Your task to perform on an android device: turn on notifications settings in the gmail app Image 0: 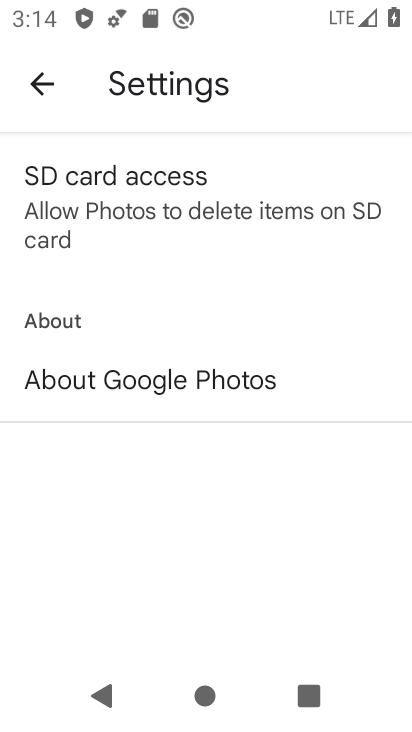
Step 0: press home button
Your task to perform on an android device: turn on notifications settings in the gmail app Image 1: 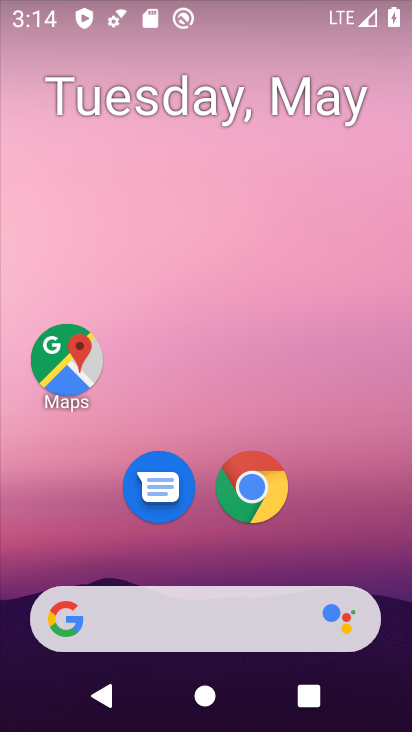
Step 1: drag from (350, 514) to (288, 102)
Your task to perform on an android device: turn on notifications settings in the gmail app Image 2: 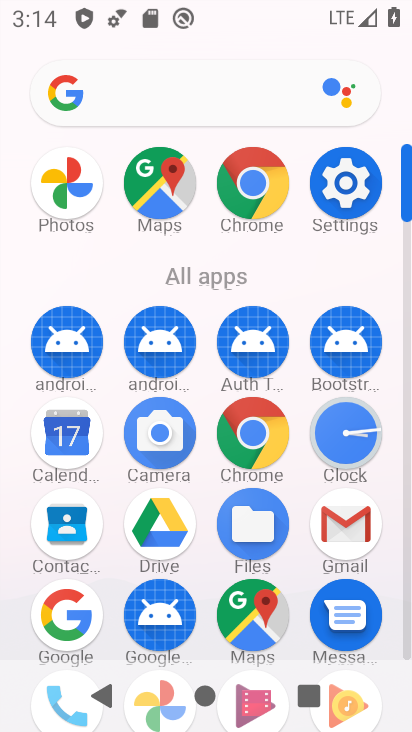
Step 2: click (346, 523)
Your task to perform on an android device: turn on notifications settings in the gmail app Image 3: 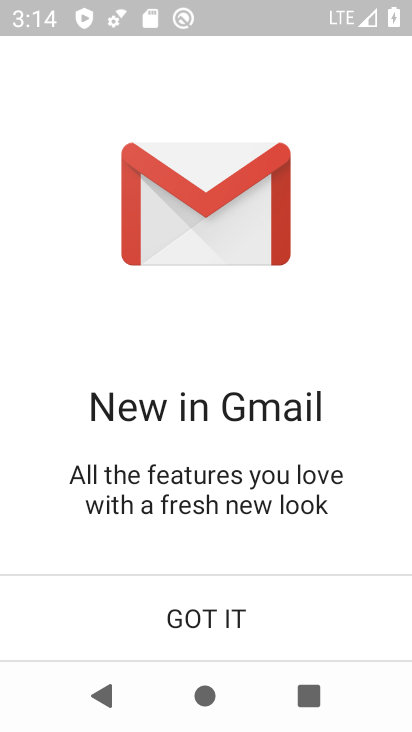
Step 3: click (249, 613)
Your task to perform on an android device: turn on notifications settings in the gmail app Image 4: 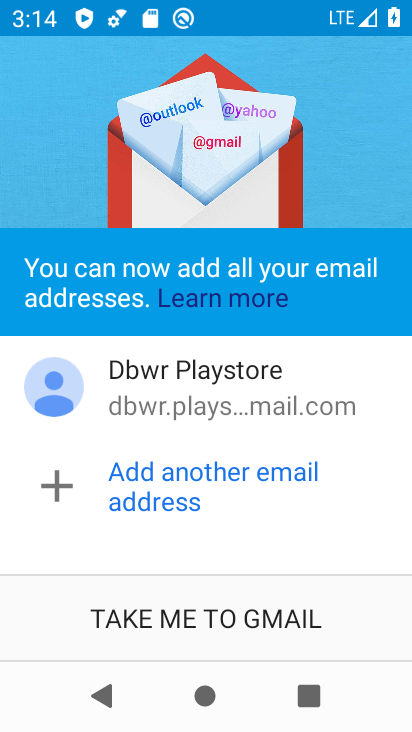
Step 4: click (240, 621)
Your task to perform on an android device: turn on notifications settings in the gmail app Image 5: 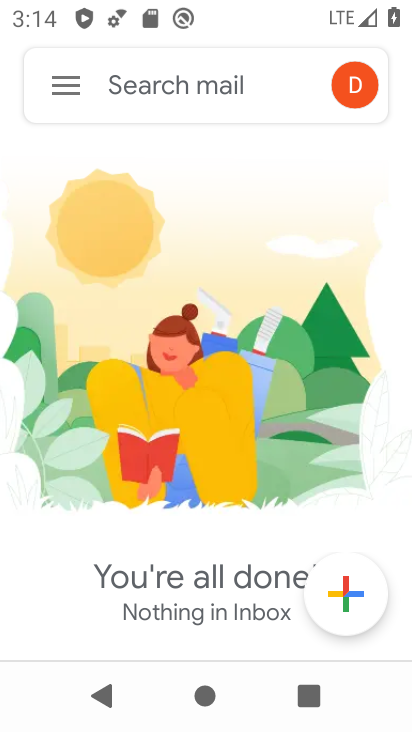
Step 5: click (54, 82)
Your task to perform on an android device: turn on notifications settings in the gmail app Image 6: 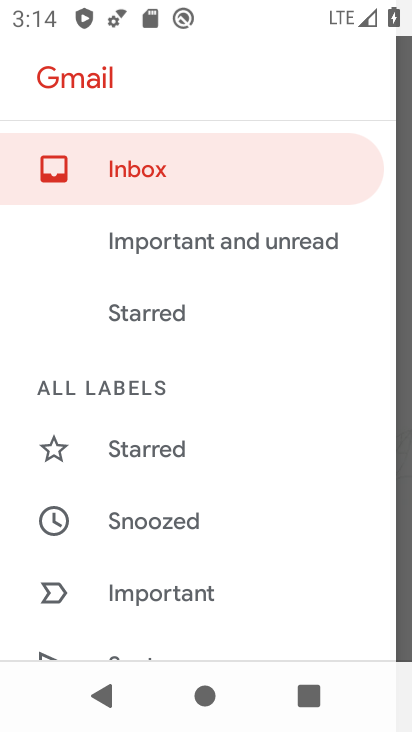
Step 6: drag from (185, 590) to (240, 211)
Your task to perform on an android device: turn on notifications settings in the gmail app Image 7: 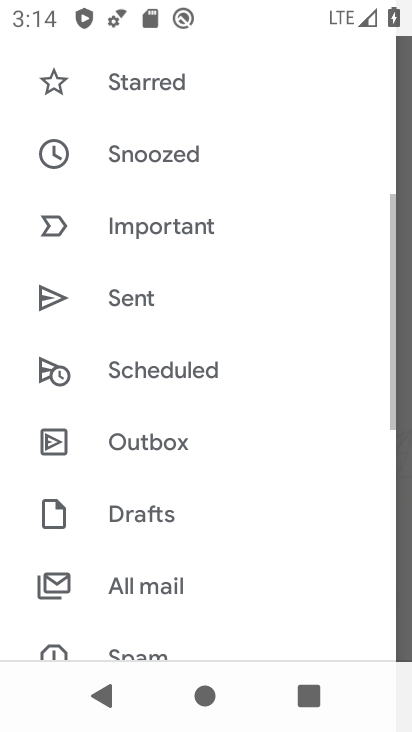
Step 7: drag from (171, 599) to (220, 236)
Your task to perform on an android device: turn on notifications settings in the gmail app Image 8: 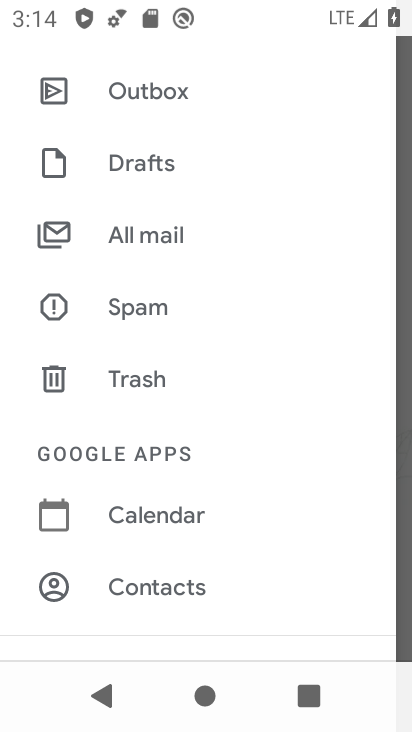
Step 8: drag from (200, 599) to (272, 164)
Your task to perform on an android device: turn on notifications settings in the gmail app Image 9: 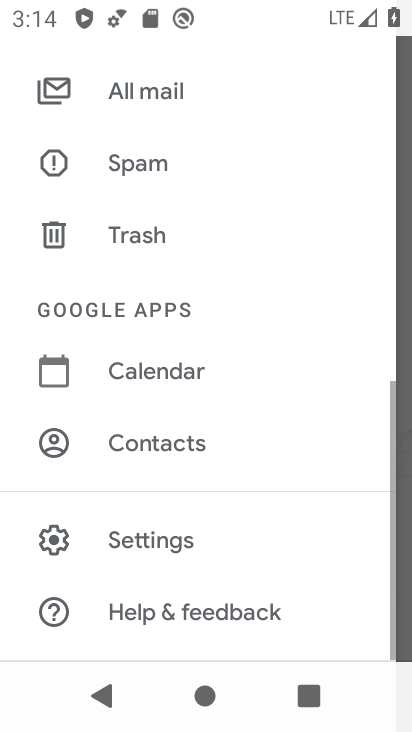
Step 9: click (208, 538)
Your task to perform on an android device: turn on notifications settings in the gmail app Image 10: 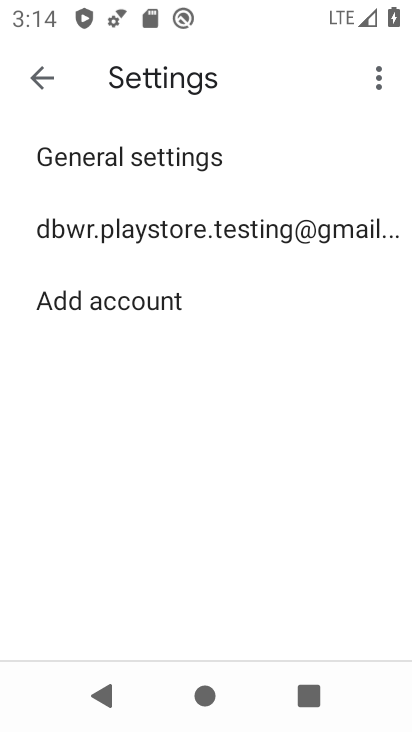
Step 10: click (182, 224)
Your task to perform on an android device: turn on notifications settings in the gmail app Image 11: 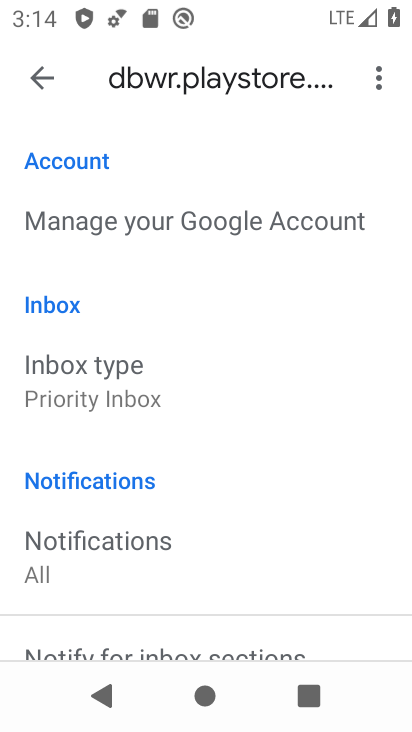
Step 11: drag from (253, 531) to (324, 155)
Your task to perform on an android device: turn on notifications settings in the gmail app Image 12: 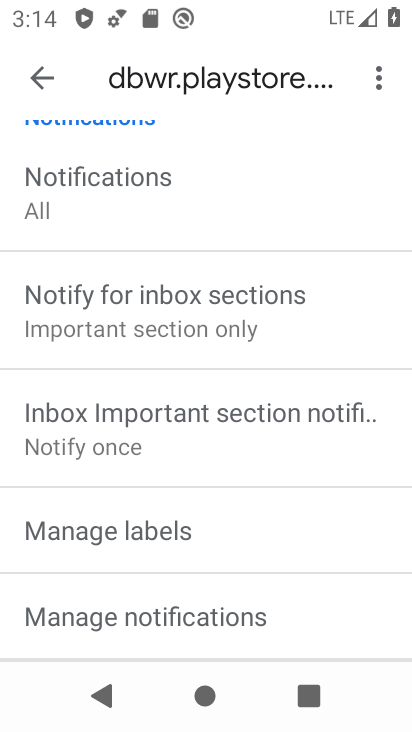
Step 12: click (224, 614)
Your task to perform on an android device: turn on notifications settings in the gmail app Image 13: 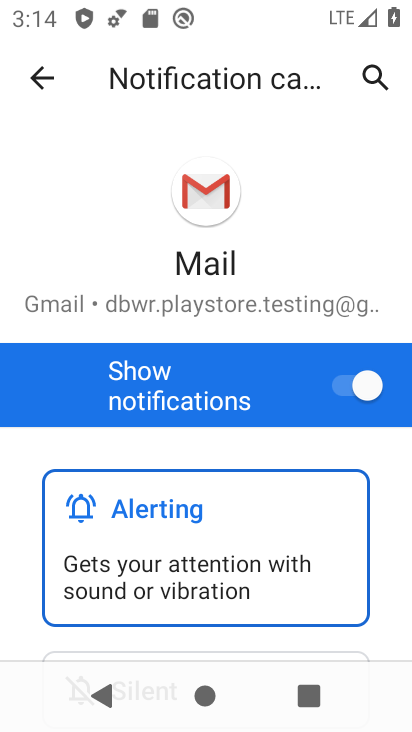
Step 13: task complete